Your task to perform on an android device: Go to location settings Image 0: 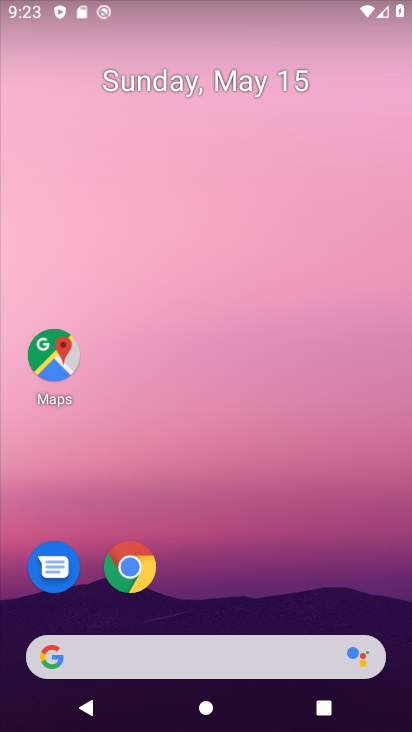
Step 0: drag from (343, 611) to (323, 84)
Your task to perform on an android device: Go to location settings Image 1: 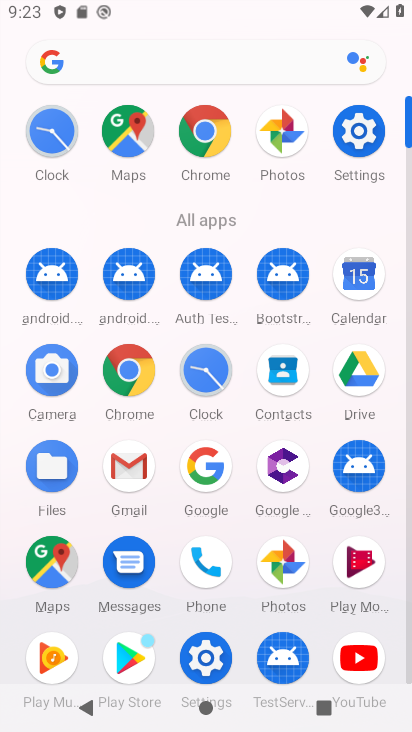
Step 1: click (375, 122)
Your task to perform on an android device: Go to location settings Image 2: 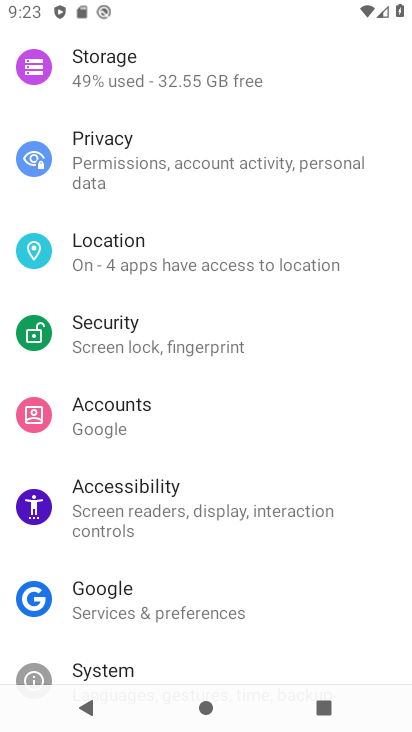
Step 2: click (187, 249)
Your task to perform on an android device: Go to location settings Image 3: 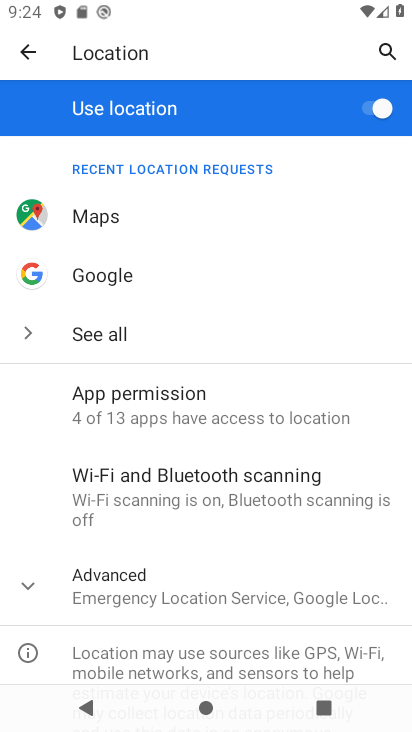
Step 3: task complete